Your task to perform on an android device: choose inbox layout in the gmail app Image 0: 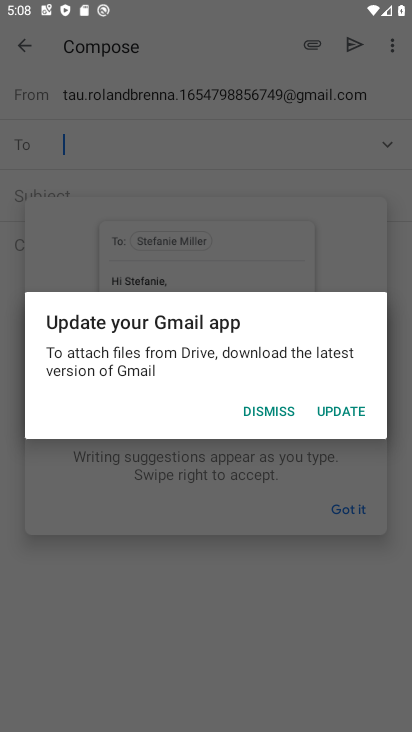
Step 0: press home button
Your task to perform on an android device: choose inbox layout in the gmail app Image 1: 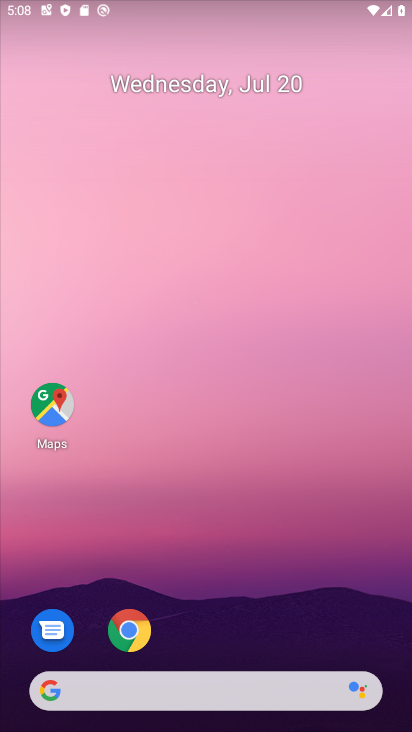
Step 1: drag from (271, 656) to (330, 4)
Your task to perform on an android device: choose inbox layout in the gmail app Image 2: 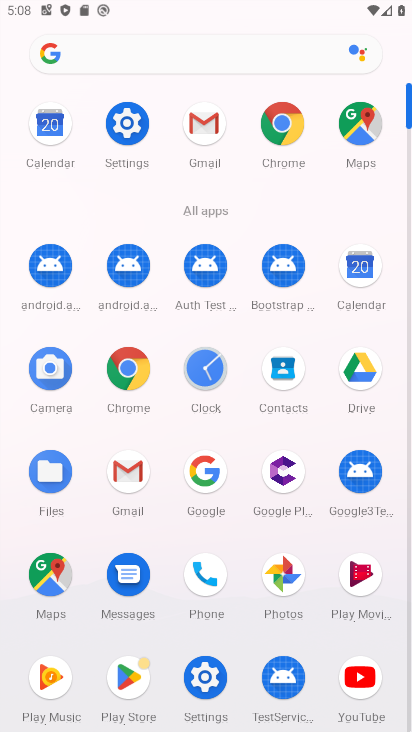
Step 2: click (120, 469)
Your task to perform on an android device: choose inbox layout in the gmail app Image 3: 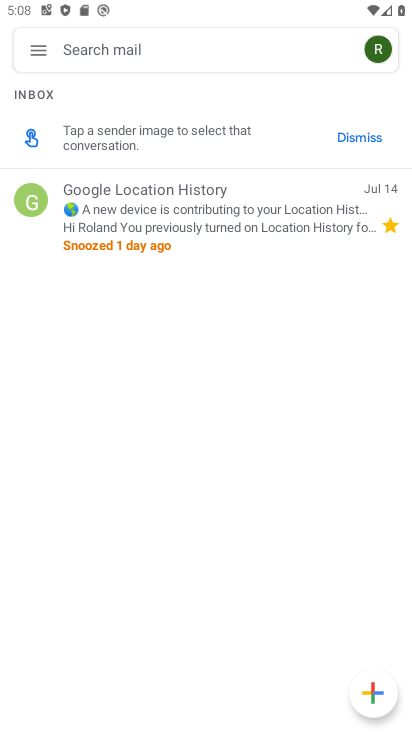
Step 3: click (47, 52)
Your task to perform on an android device: choose inbox layout in the gmail app Image 4: 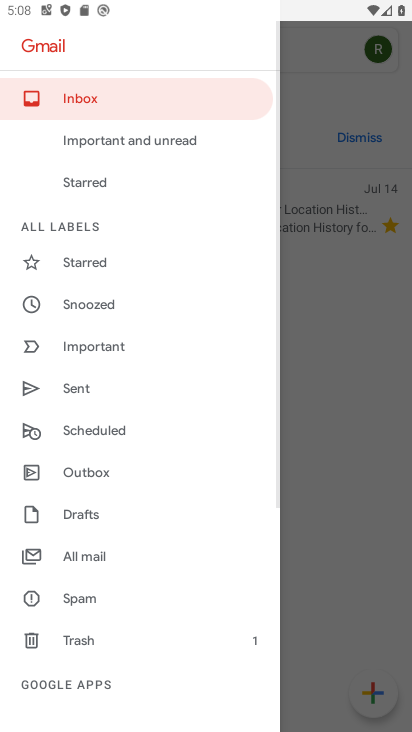
Step 4: drag from (115, 668) to (132, 326)
Your task to perform on an android device: choose inbox layout in the gmail app Image 5: 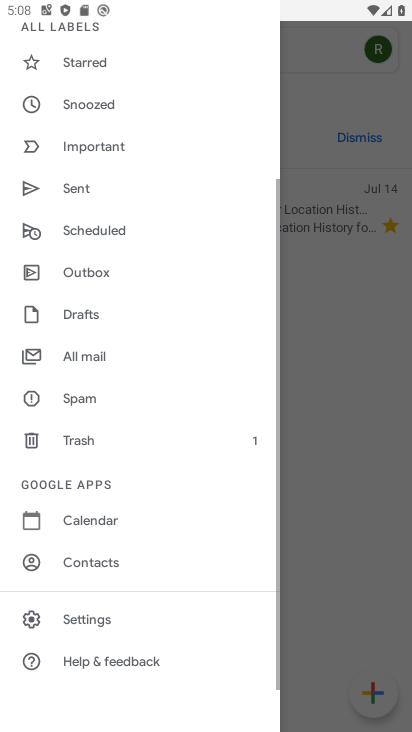
Step 5: click (114, 619)
Your task to perform on an android device: choose inbox layout in the gmail app Image 6: 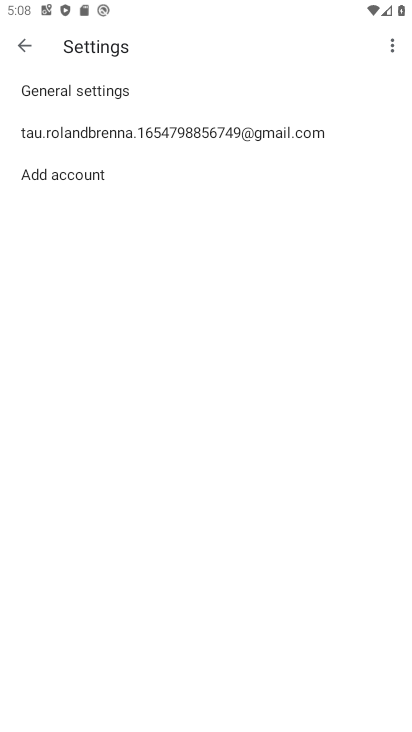
Step 6: click (257, 134)
Your task to perform on an android device: choose inbox layout in the gmail app Image 7: 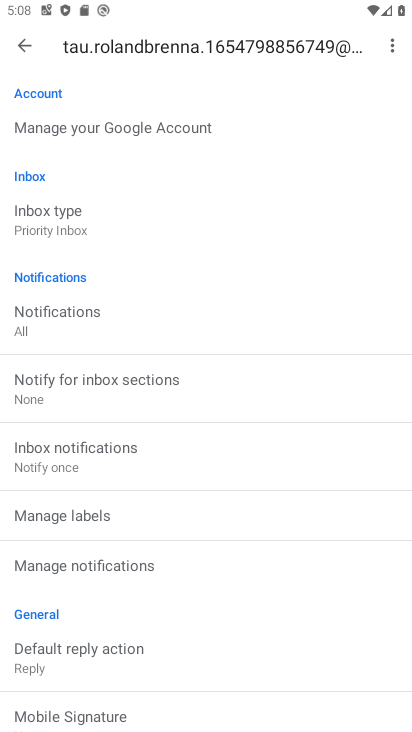
Step 7: click (68, 228)
Your task to perform on an android device: choose inbox layout in the gmail app Image 8: 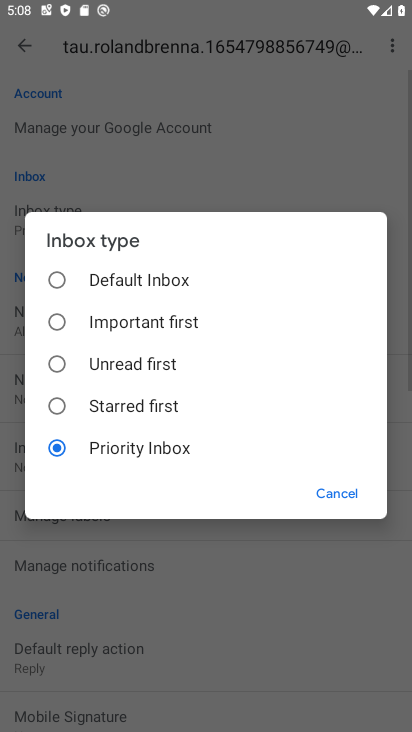
Step 8: task complete